Your task to perform on an android device: Find the nearest electronics store that's open tomorrow Image 0: 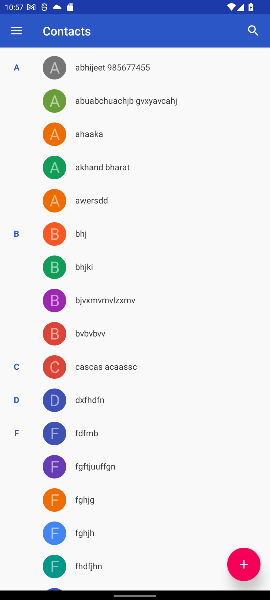
Step 0: press home button
Your task to perform on an android device: Find the nearest electronics store that's open tomorrow Image 1: 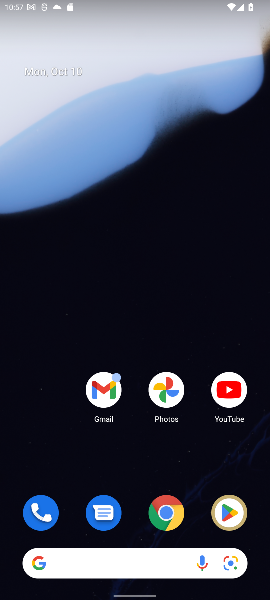
Step 1: click (128, 559)
Your task to perform on an android device: Find the nearest electronics store that's open tomorrow Image 2: 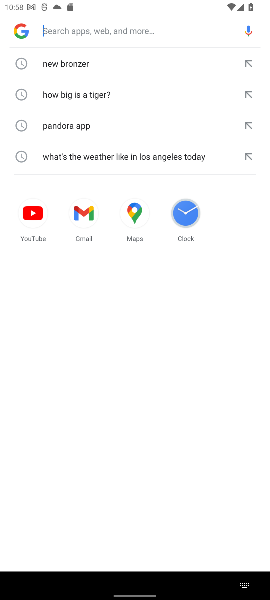
Step 2: type "Find the nearest electronics store that's open tomorrow"
Your task to perform on an android device: Find the nearest electronics store that's open tomorrow Image 3: 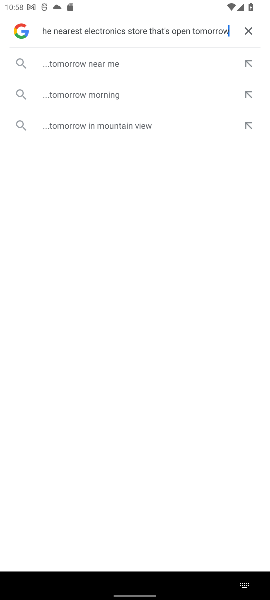
Step 3: click (83, 61)
Your task to perform on an android device: Find the nearest electronics store that's open tomorrow Image 4: 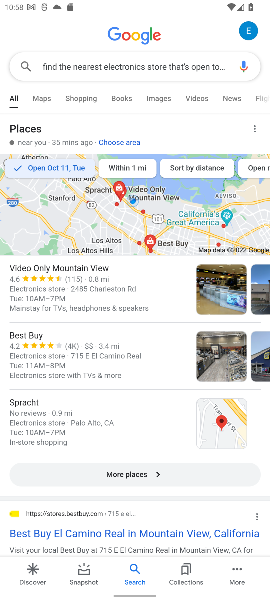
Step 4: task complete